Your task to perform on an android device: Toggle notifications for the Google Photos app Image 0: 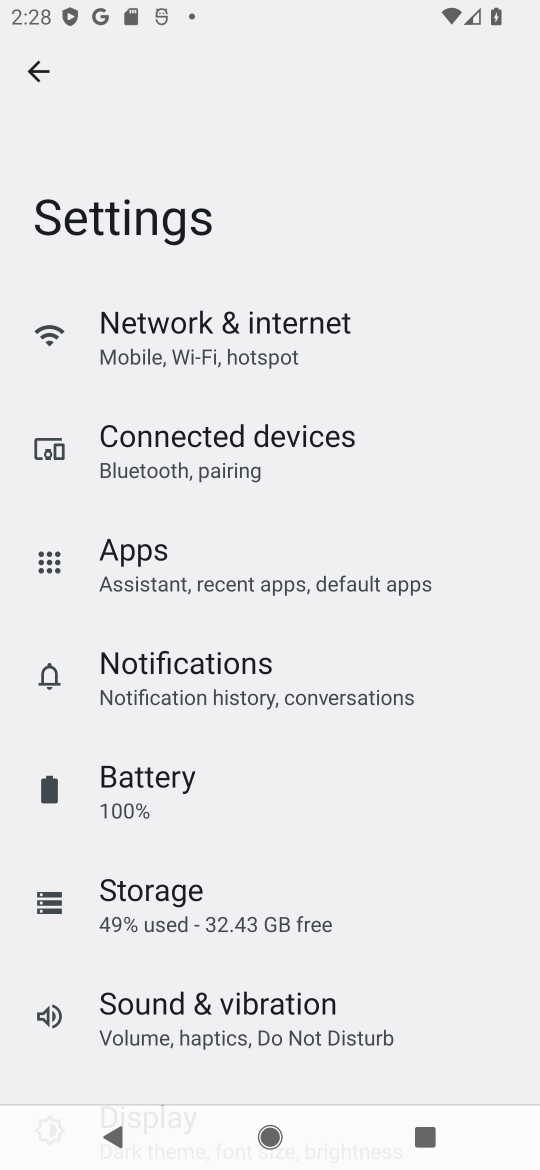
Step 0: press home button
Your task to perform on an android device: Toggle notifications for the Google Photos app Image 1: 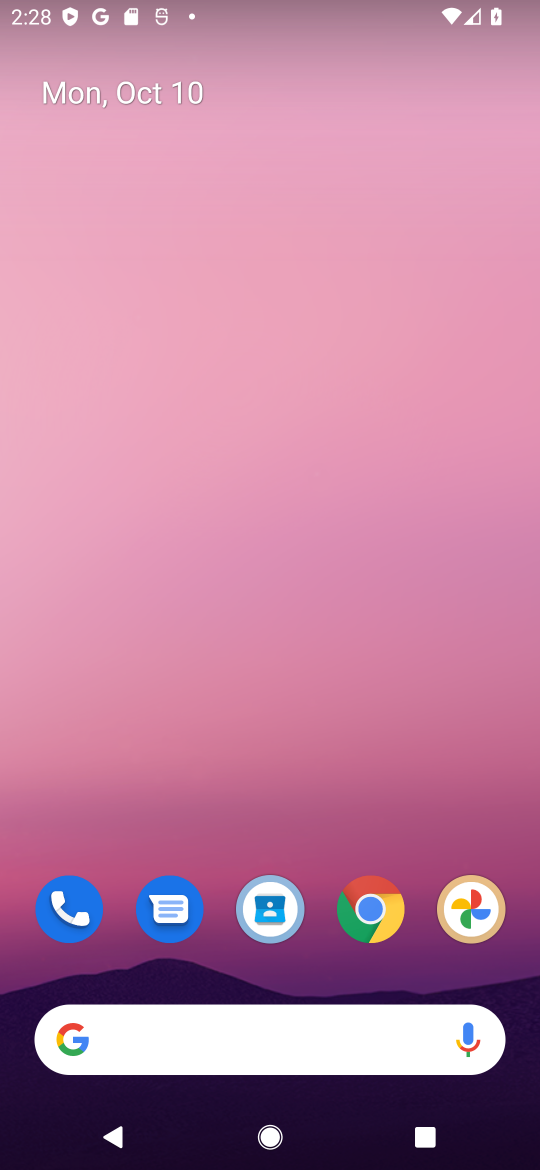
Step 1: click (475, 908)
Your task to perform on an android device: Toggle notifications for the Google Photos app Image 2: 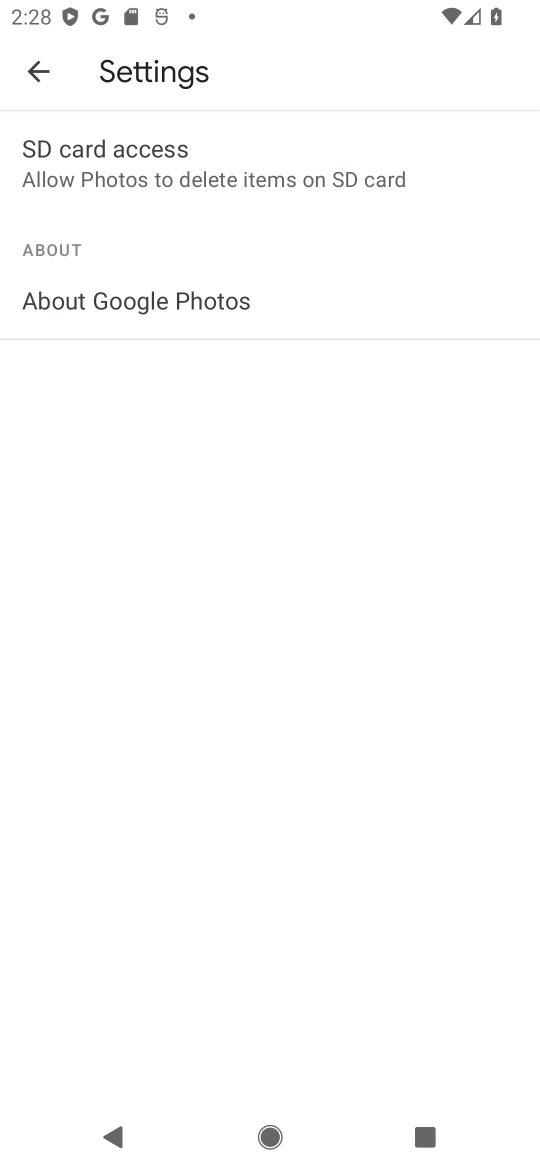
Step 2: press back button
Your task to perform on an android device: Toggle notifications for the Google Photos app Image 3: 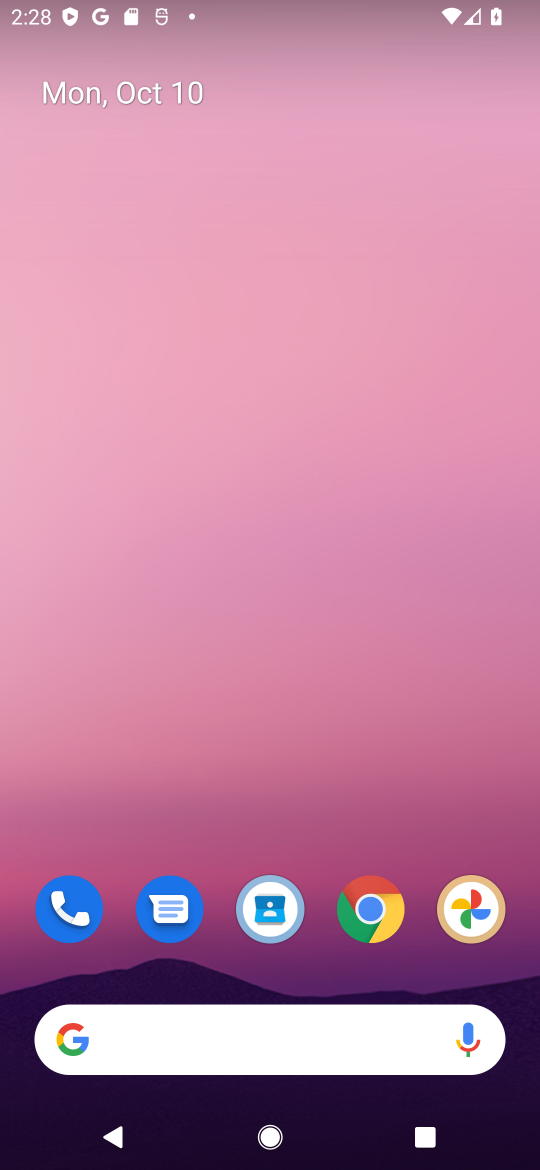
Step 3: click (462, 903)
Your task to perform on an android device: Toggle notifications for the Google Photos app Image 4: 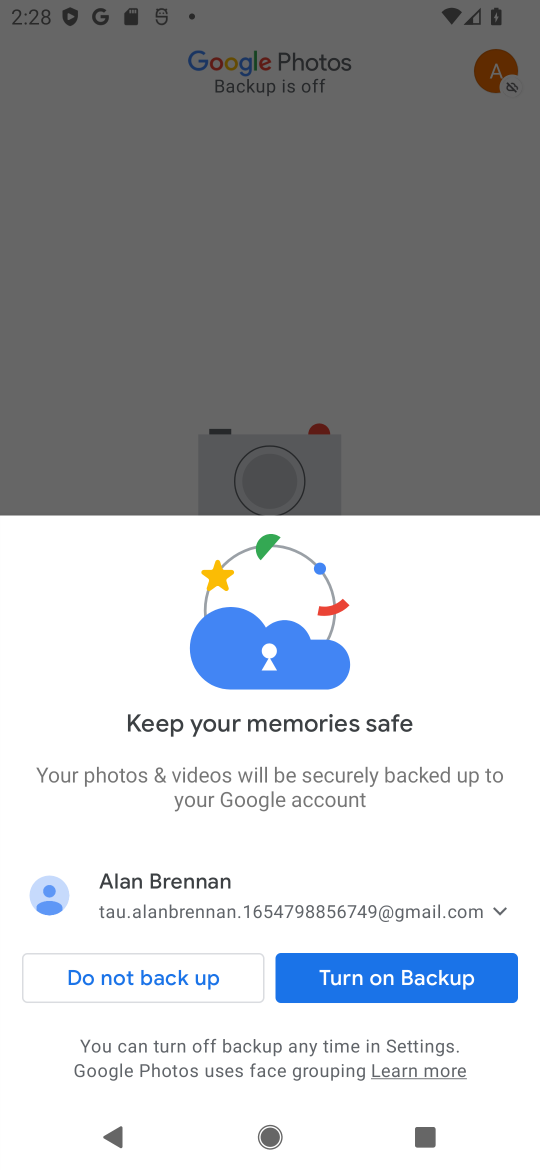
Step 4: click (381, 977)
Your task to perform on an android device: Toggle notifications for the Google Photos app Image 5: 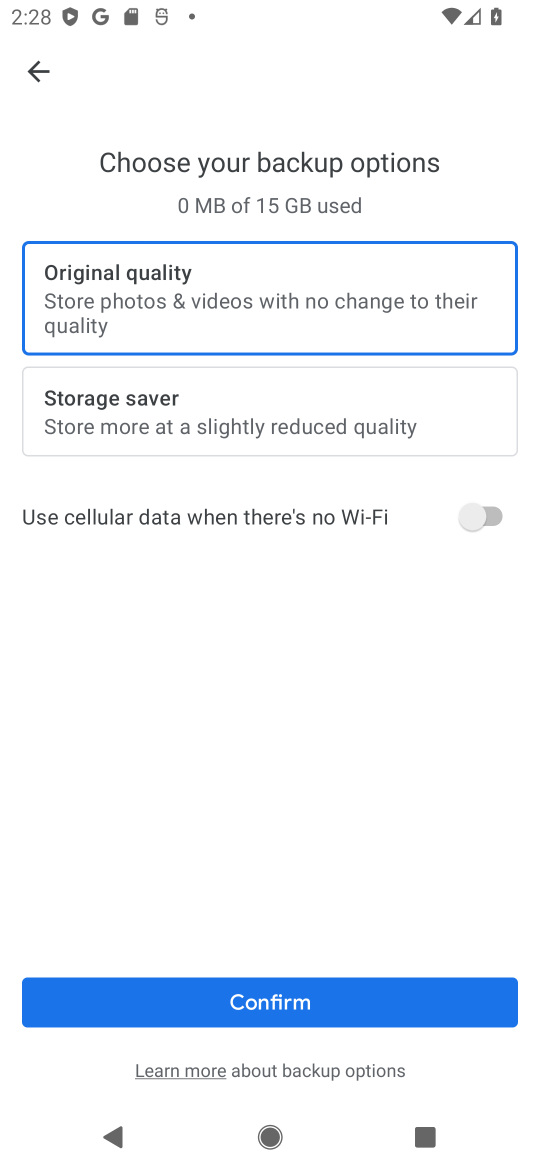
Step 5: click (252, 1006)
Your task to perform on an android device: Toggle notifications for the Google Photos app Image 6: 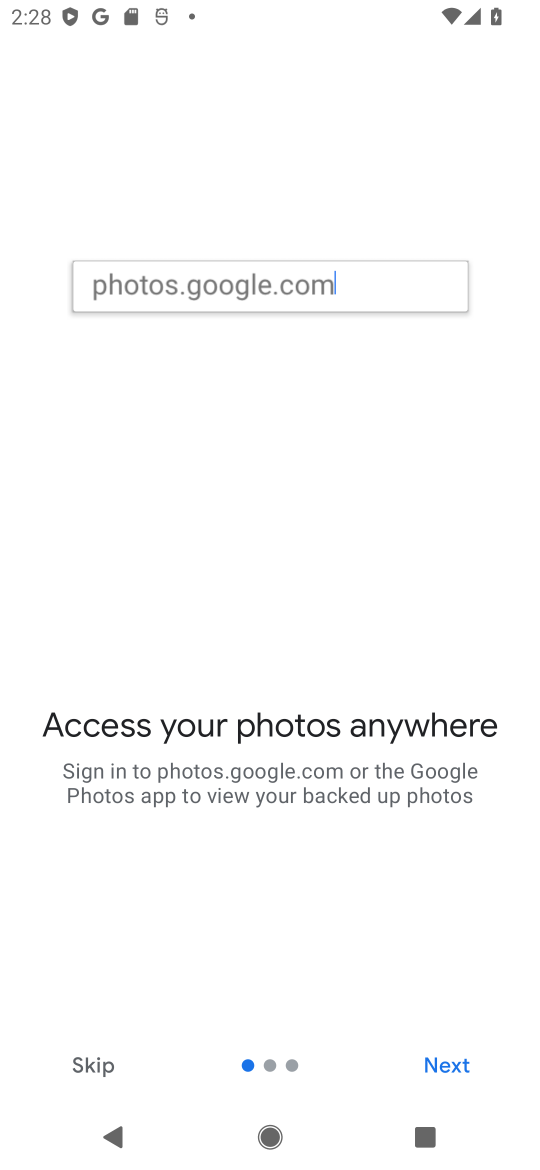
Step 6: click (85, 1075)
Your task to perform on an android device: Toggle notifications for the Google Photos app Image 7: 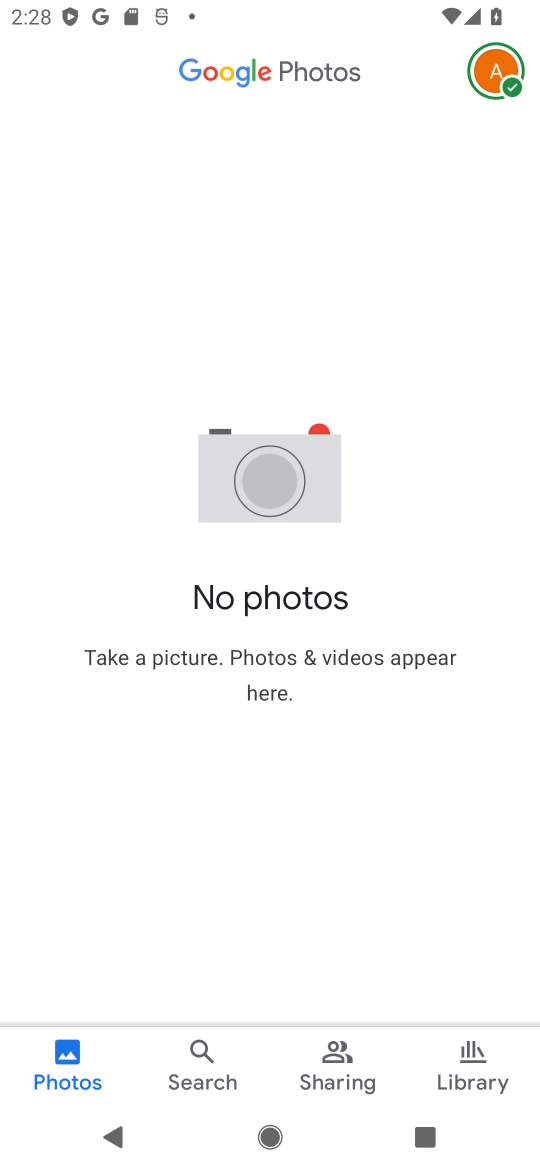
Step 7: click (496, 76)
Your task to perform on an android device: Toggle notifications for the Google Photos app Image 8: 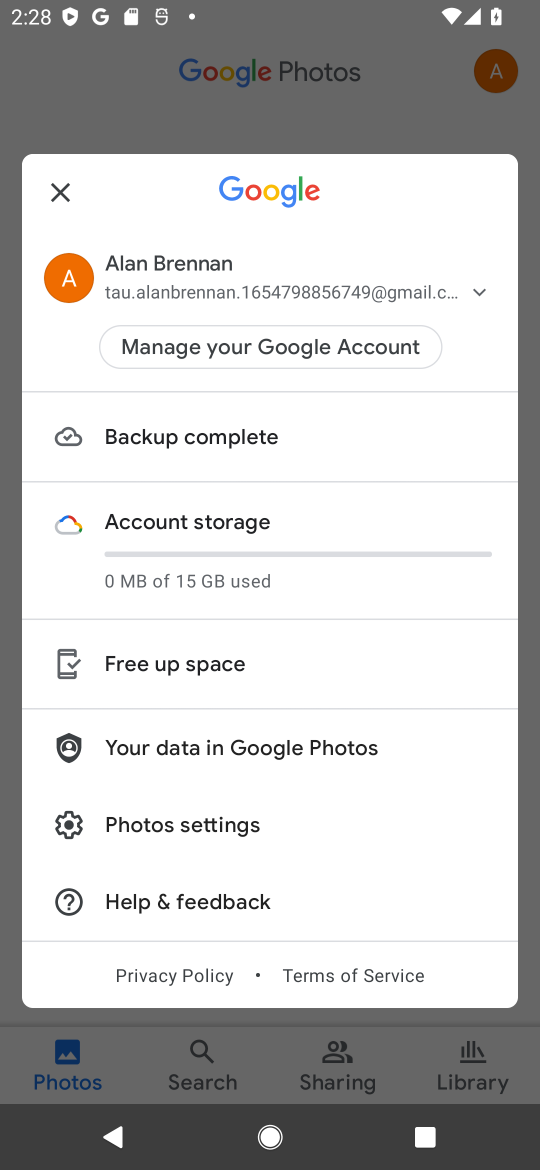
Step 8: click (162, 832)
Your task to perform on an android device: Toggle notifications for the Google Photos app Image 9: 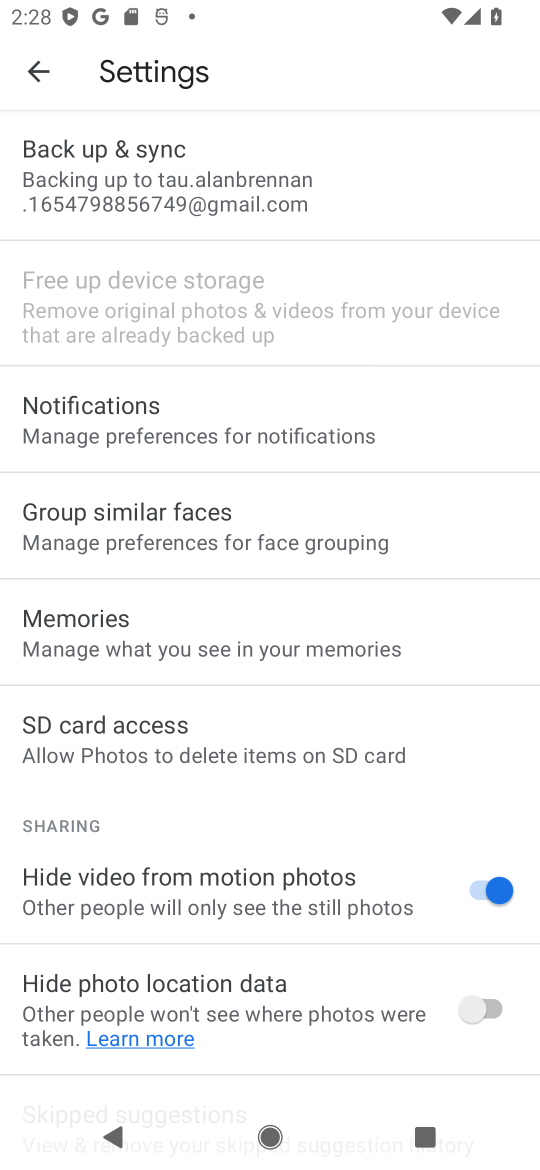
Step 9: click (143, 410)
Your task to perform on an android device: Toggle notifications for the Google Photos app Image 10: 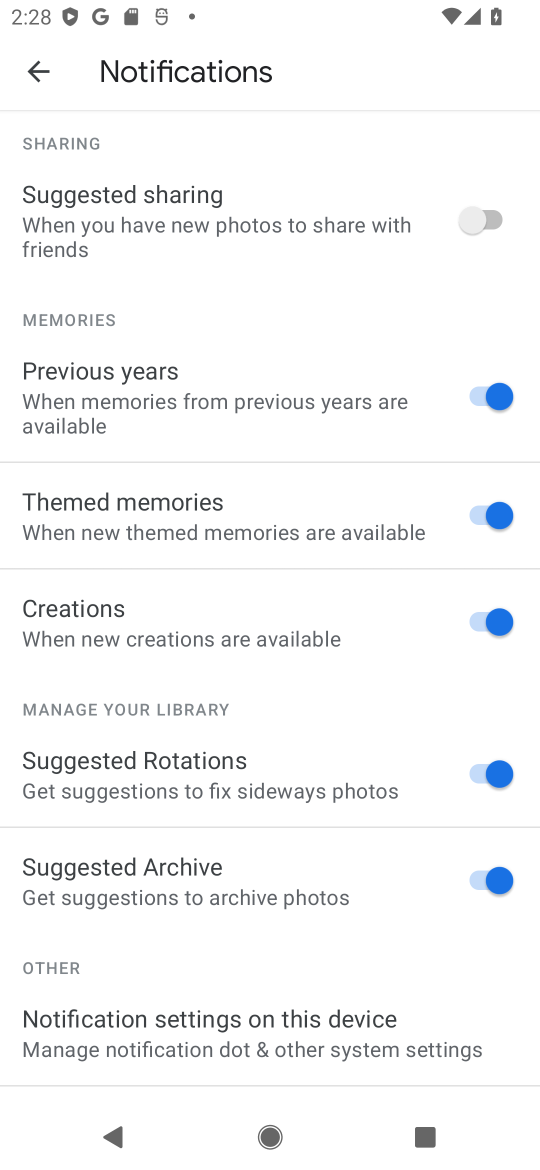
Step 10: click (194, 1018)
Your task to perform on an android device: Toggle notifications for the Google Photos app Image 11: 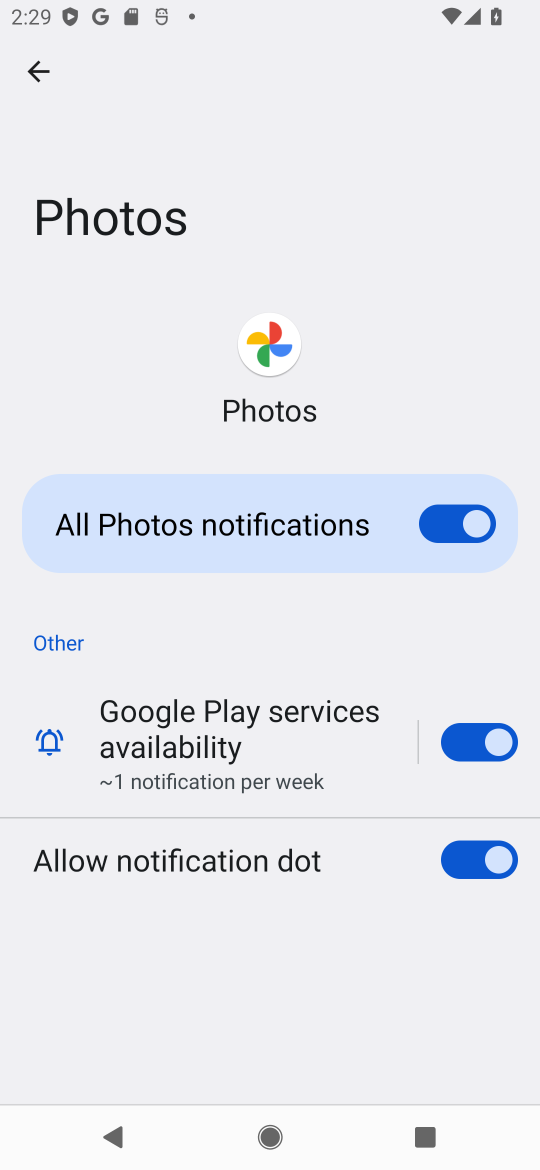
Step 11: click (426, 515)
Your task to perform on an android device: Toggle notifications for the Google Photos app Image 12: 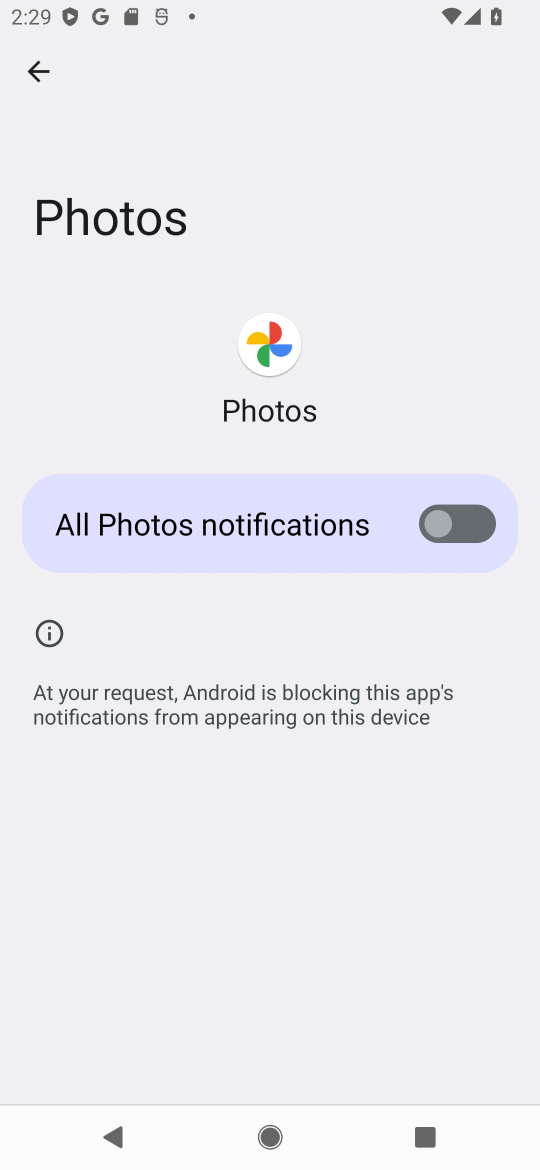
Step 12: task complete